Your task to perform on an android device: turn on javascript in the chrome app Image 0: 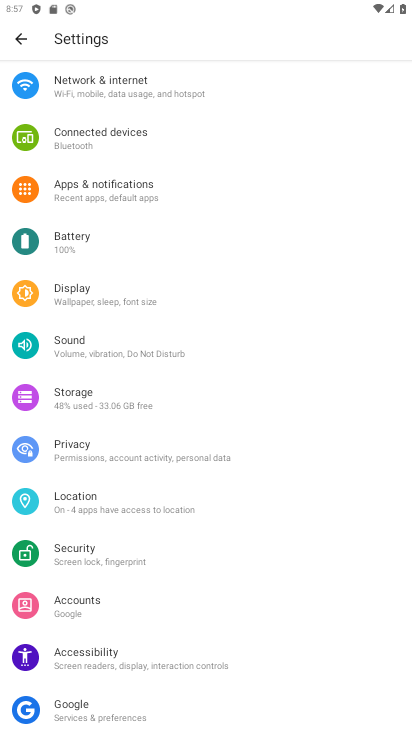
Step 0: press home button
Your task to perform on an android device: turn on javascript in the chrome app Image 1: 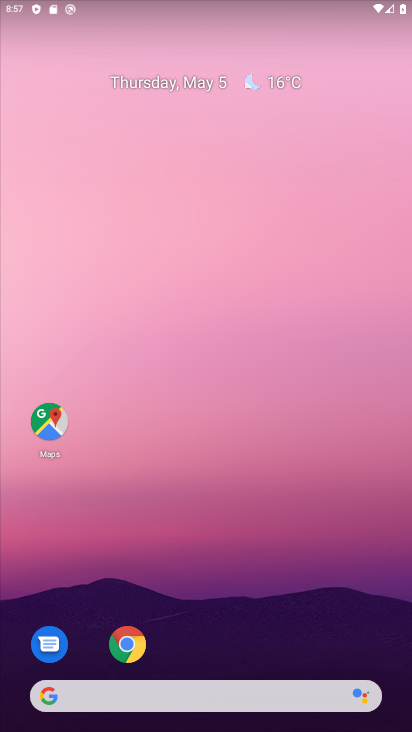
Step 1: click (128, 643)
Your task to perform on an android device: turn on javascript in the chrome app Image 2: 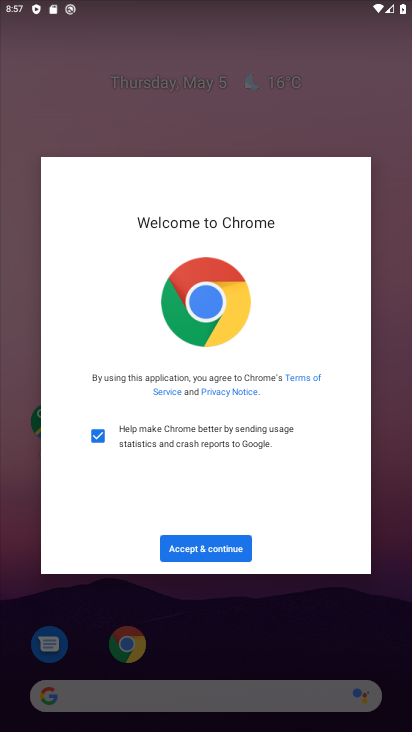
Step 2: click (181, 549)
Your task to perform on an android device: turn on javascript in the chrome app Image 3: 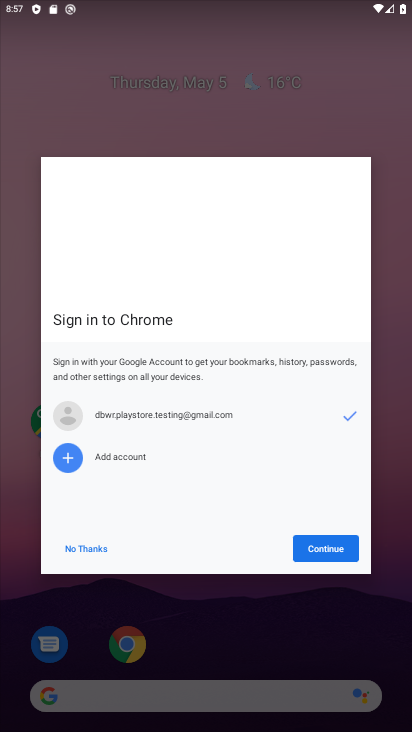
Step 3: click (332, 554)
Your task to perform on an android device: turn on javascript in the chrome app Image 4: 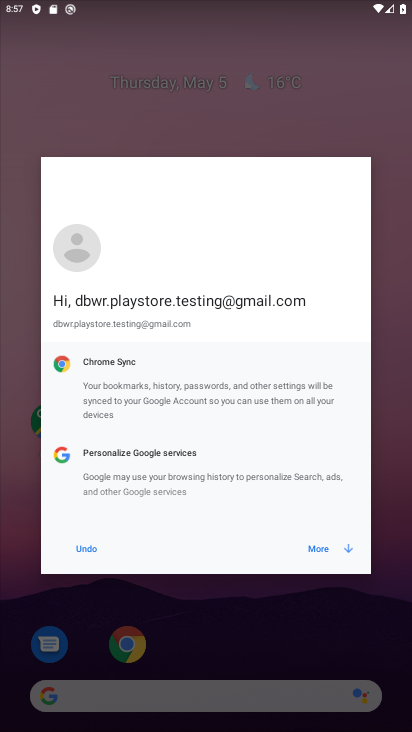
Step 4: click (332, 554)
Your task to perform on an android device: turn on javascript in the chrome app Image 5: 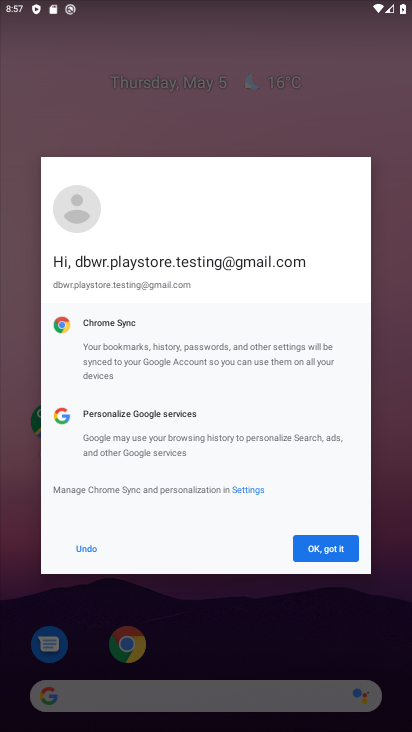
Step 5: click (332, 554)
Your task to perform on an android device: turn on javascript in the chrome app Image 6: 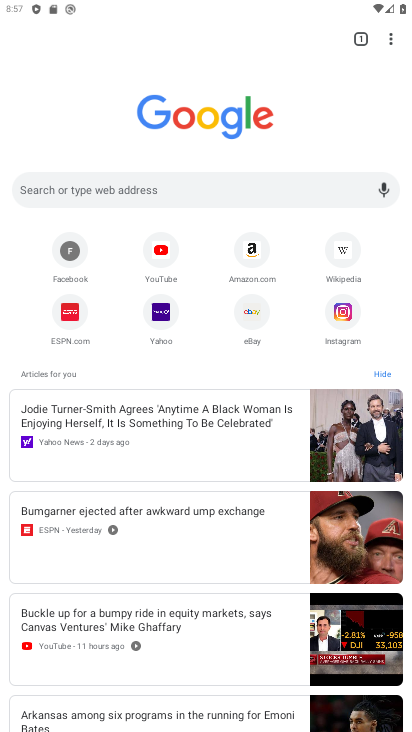
Step 6: click (392, 33)
Your task to perform on an android device: turn on javascript in the chrome app Image 7: 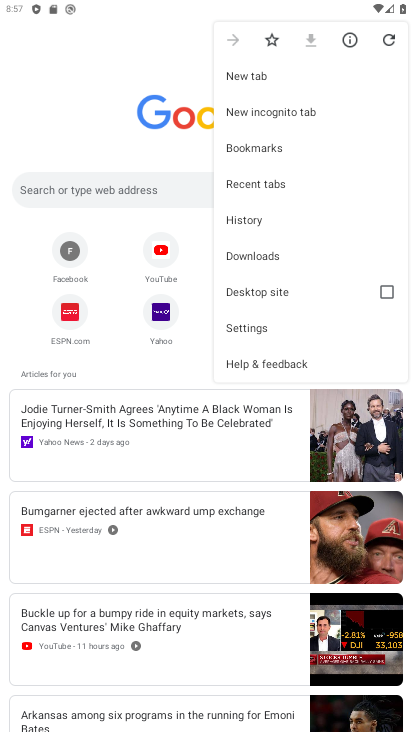
Step 7: click (260, 325)
Your task to perform on an android device: turn on javascript in the chrome app Image 8: 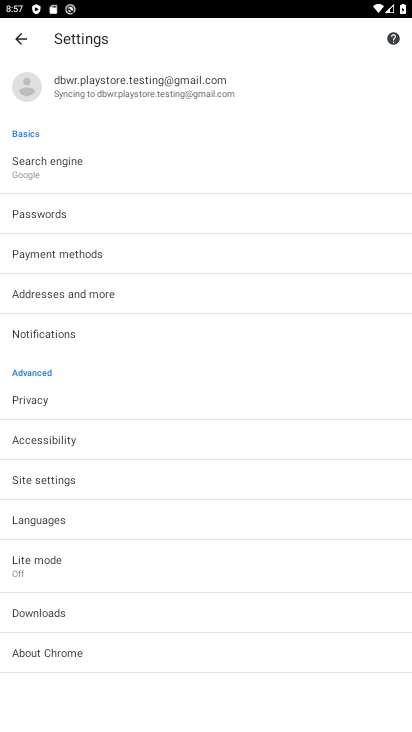
Step 8: click (96, 483)
Your task to perform on an android device: turn on javascript in the chrome app Image 9: 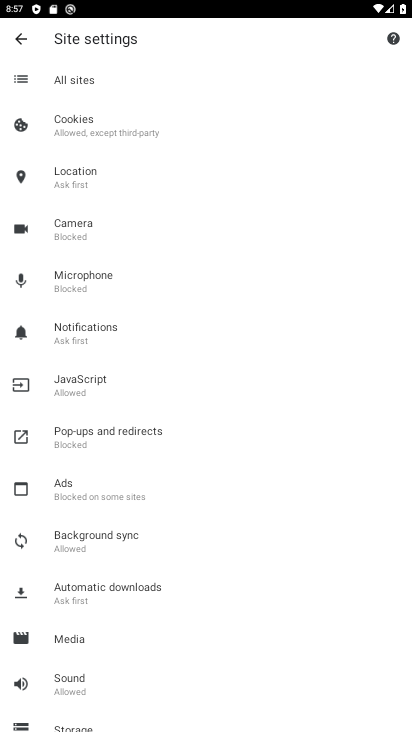
Step 9: click (91, 389)
Your task to perform on an android device: turn on javascript in the chrome app Image 10: 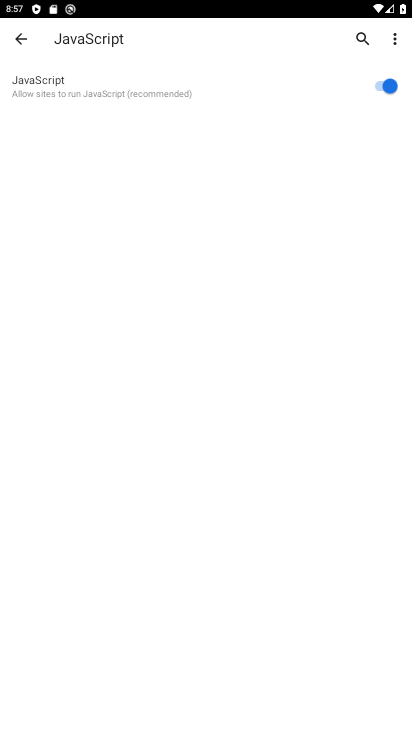
Step 10: task complete